Your task to perform on an android device: star an email in the gmail app Image 0: 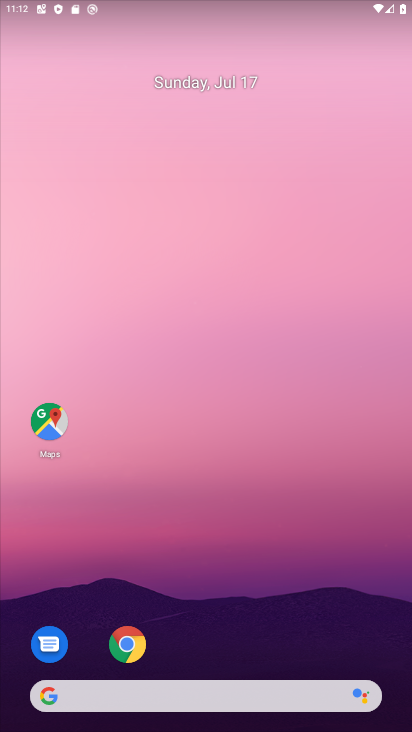
Step 0: drag from (312, 594) to (269, 86)
Your task to perform on an android device: star an email in the gmail app Image 1: 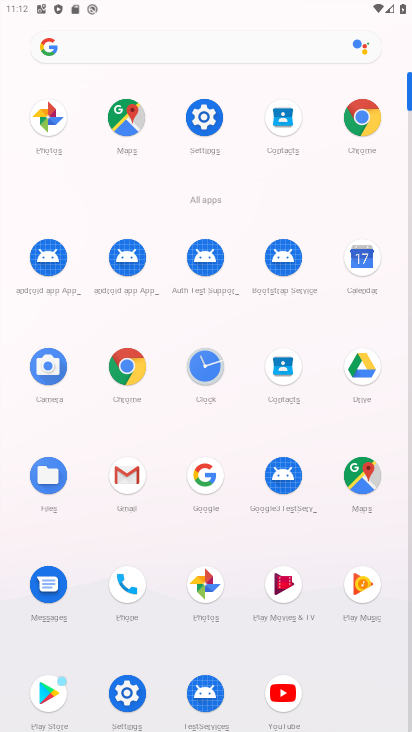
Step 1: click (130, 465)
Your task to perform on an android device: star an email in the gmail app Image 2: 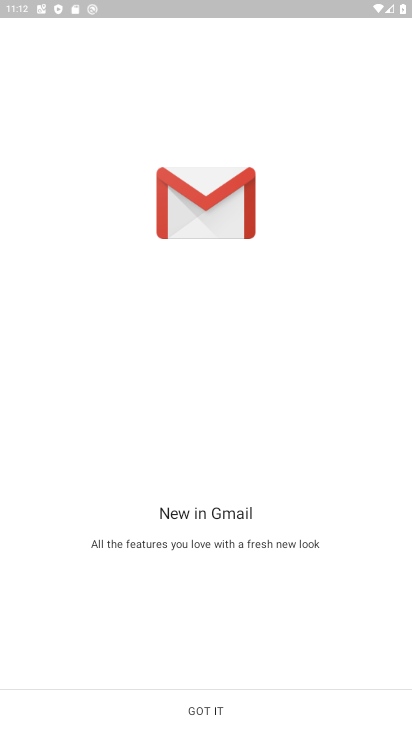
Step 2: click (215, 705)
Your task to perform on an android device: star an email in the gmail app Image 3: 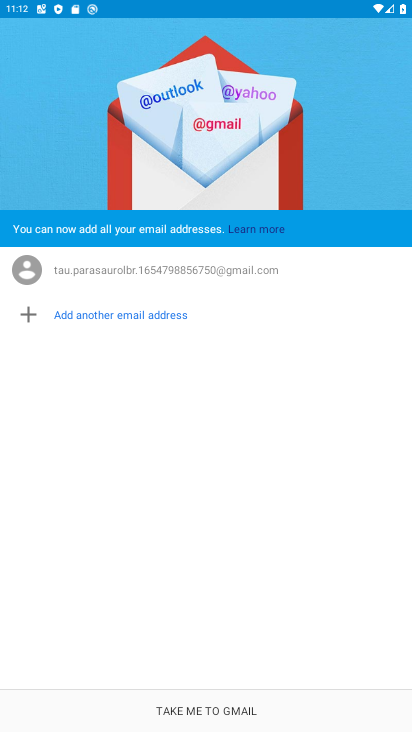
Step 3: click (215, 705)
Your task to perform on an android device: star an email in the gmail app Image 4: 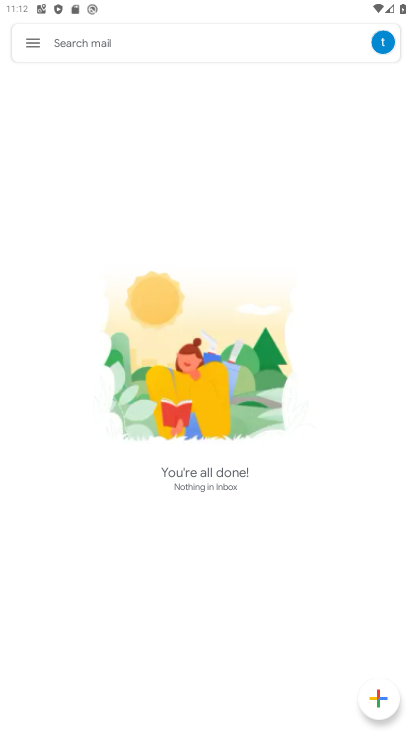
Step 4: click (38, 46)
Your task to perform on an android device: star an email in the gmail app Image 5: 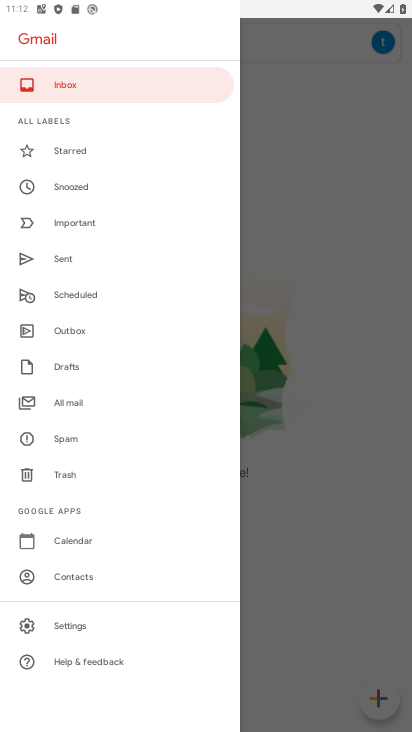
Step 5: click (74, 405)
Your task to perform on an android device: star an email in the gmail app Image 6: 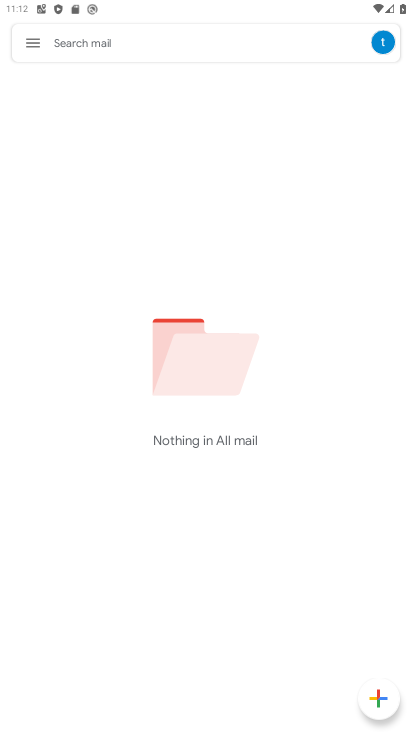
Step 6: task complete